Your task to perform on an android device: Go to settings Image 0: 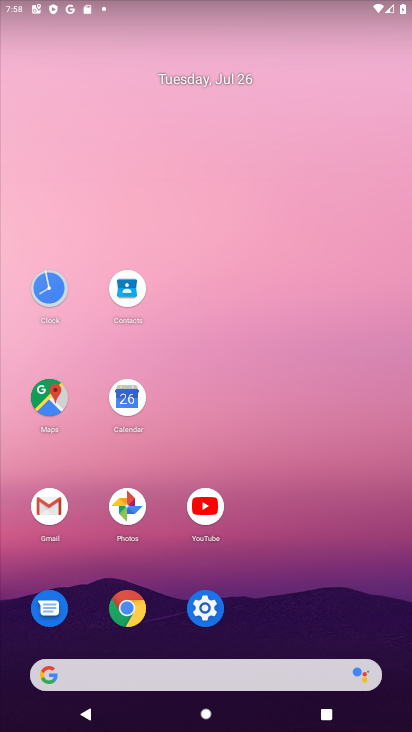
Step 0: click (212, 606)
Your task to perform on an android device: Go to settings Image 1: 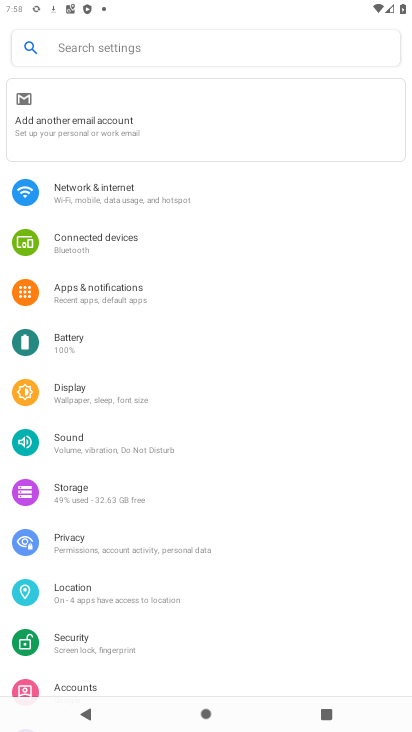
Step 1: task complete